Your task to perform on an android device: open the mobile data screen to see how much data has been used Image 0: 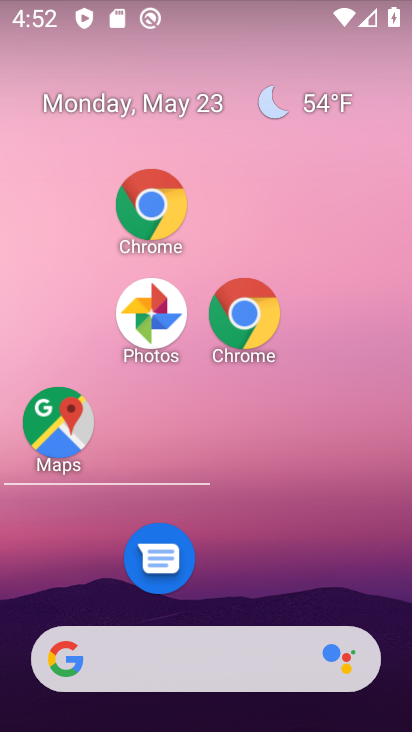
Step 0: click (206, 369)
Your task to perform on an android device: open the mobile data screen to see how much data has been used Image 1: 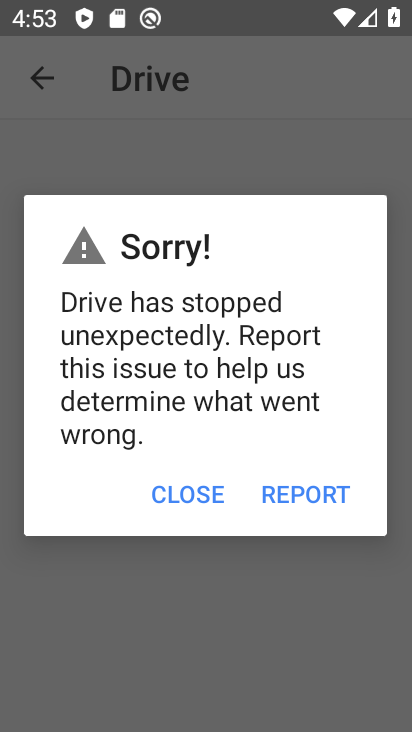
Step 1: click (184, 490)
Your task to perform on an android device: open the mobile data screen to see how much data has been used Image 2: 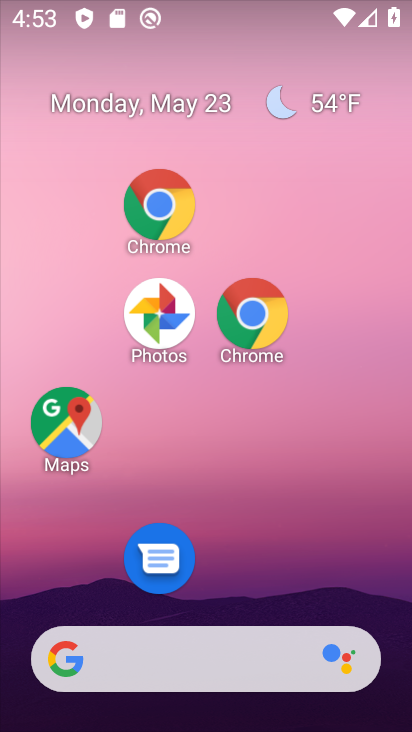
Step 2: drag from (231, 619) to (83, 6)
Your task to perform on an android device: open the mobile data screen to see how much data has been used Image 3: 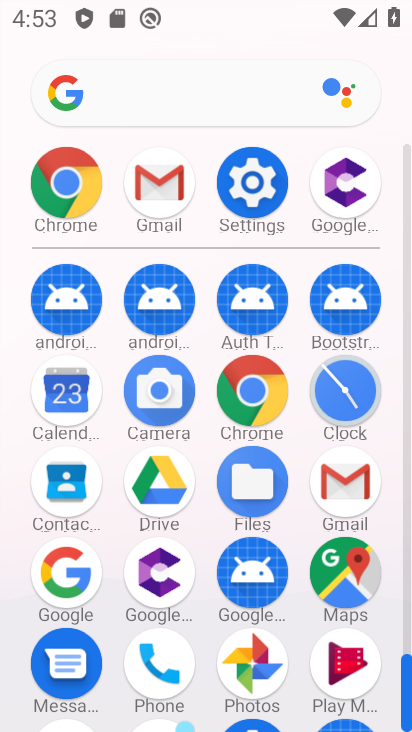
Step 3: click (255, 197)
Your task to perform on an android device: open the mobile data screen to see how much data has been used Image 4: 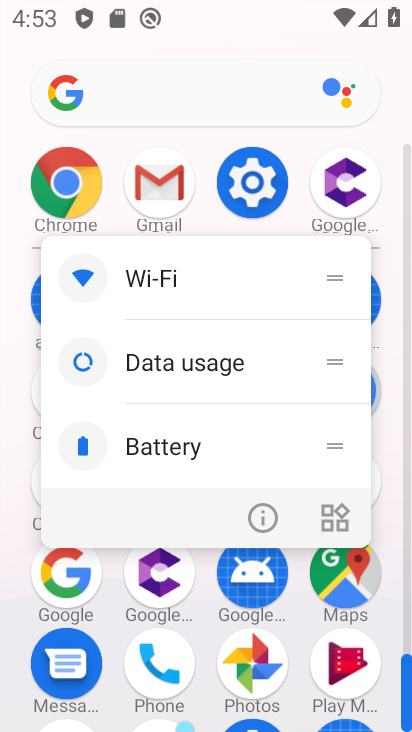
Step 4: click (242, 187)
Your task to perform on an android device: open the mobile data screen to see how much data has been used Image 5: 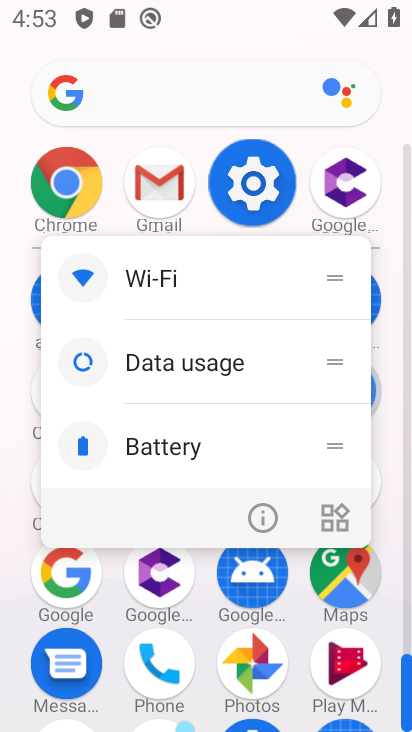
Step 5: click (242, 187)
Your task to perform on an android device: open the mobile data screen to see how much data has been used Image 6: 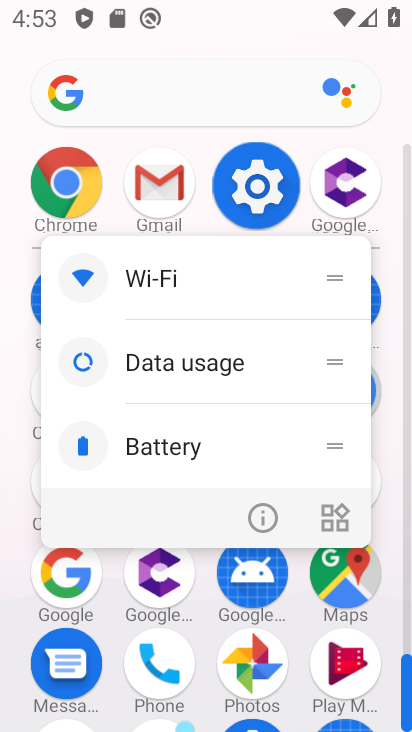
Step 6: click (246, 190)
Your task to perform on an android device: open the mobile data screen to see how much data has been used Image 7: 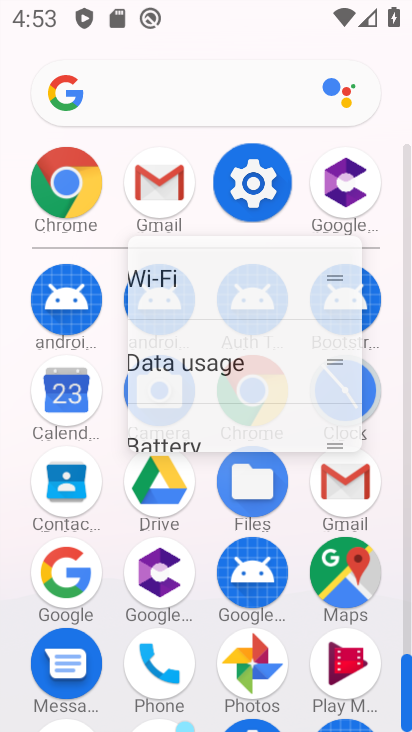
Step 7: click (245, 193)
Your task to perform on an android device: open the mobile data screen to see how much data has been used Image 8: 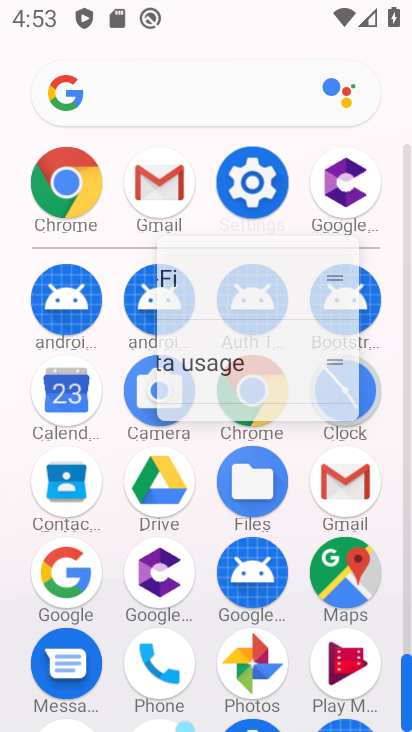
Step 8: click (245, 193)
Your task to perform on an android device: open the mobile data screen to see how much data has been used Image 9: 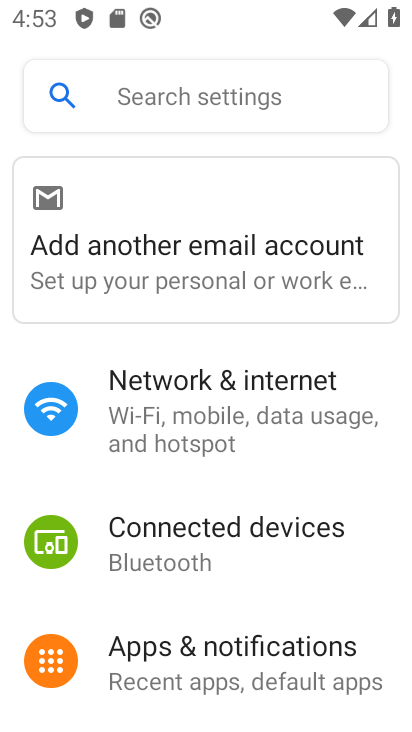
Step 9: click (218, 403)
Your task to perform on an android device: open the mobile data screen to see how much data has been used Image 10: 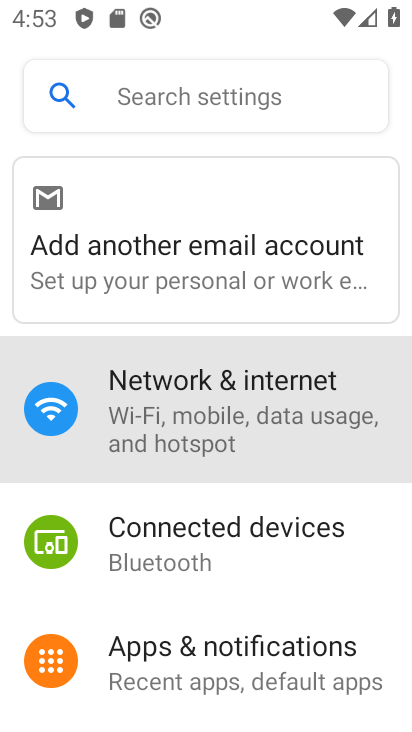
Step 10: click (218, 403)
Your task to perform on an android device: open the mobile data screen to see how much data has been used Image 11: 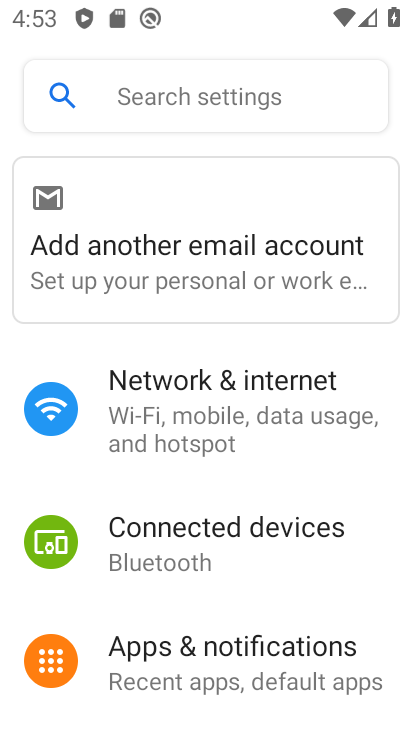
Step 11: click (226, 406)
Your task to perform on an android device: open the mobile data screen to see how much data has been used Image 12: 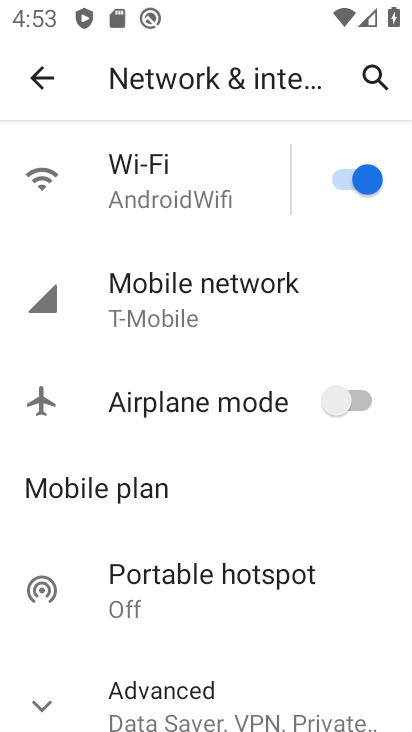
Step 12: task complete